Your task to perform on an android device: set default search engine in the chrome app Image 0: 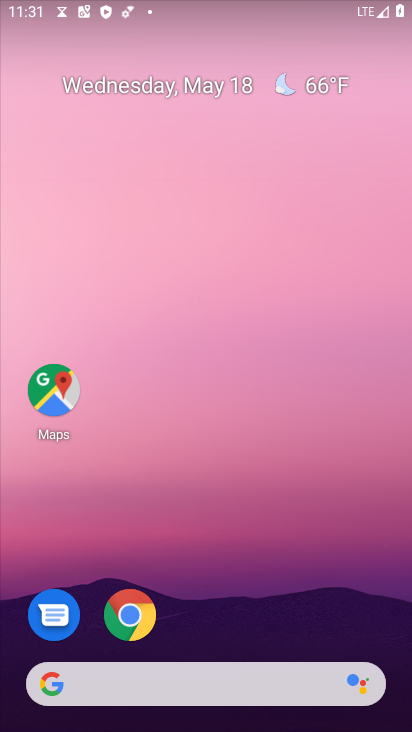
Step 0: drag from (210, 562) to (195, 28)
Your task to perform on an android device: set default search engine in the chrome app Image 1: 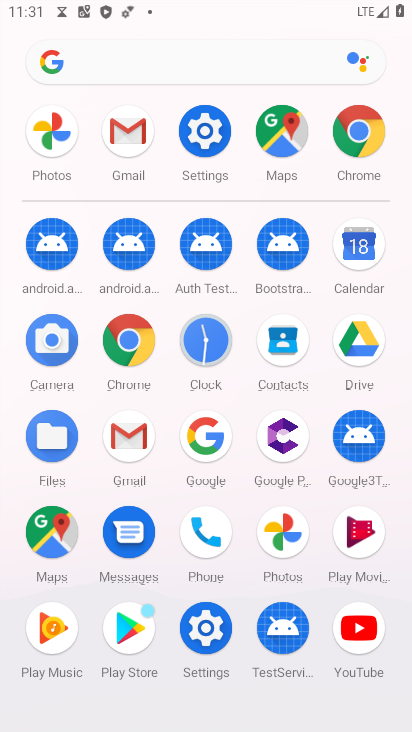
Step 1: drag from (0, 590) to (27, 255)
Your task to perform on an android device: set default search engine in the chrome app Image 2: 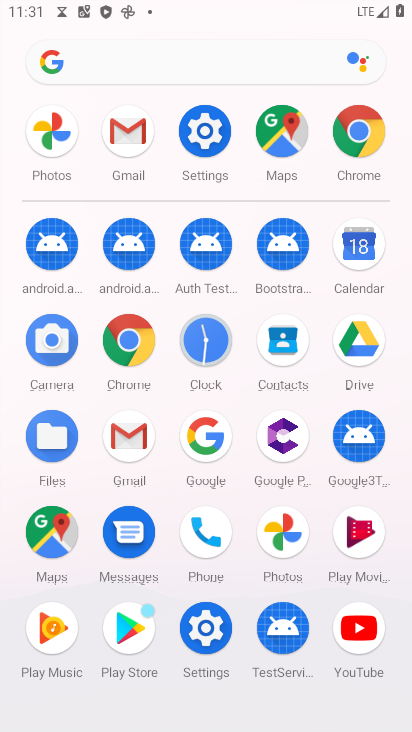
Step 2: click (126, 339)
Your task to perform on an android device: set default search engine in the chrome app Image 3: 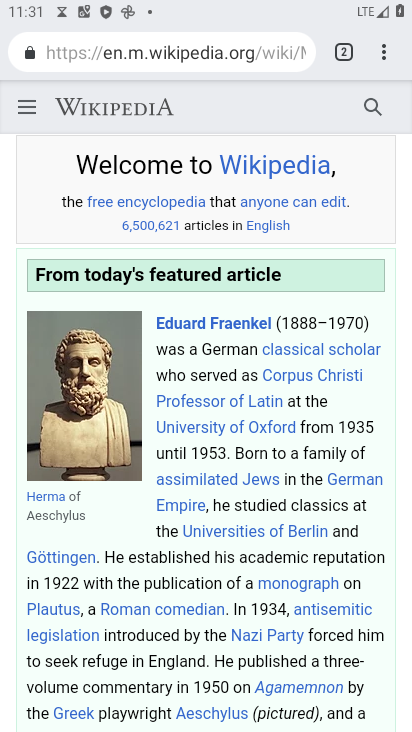
Step 3: drag from (382, 44) to (186, 630)
Your task to perform on an android device: set default search engine in the chrome app Image 4: 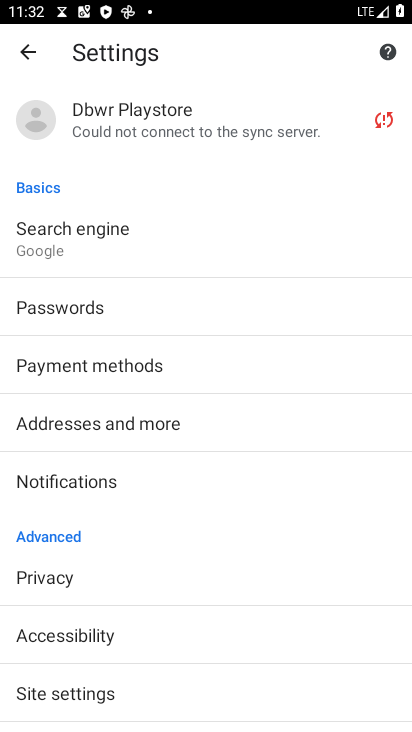
Step 4: drag from (220, 514) to (220, 199)
Your task to perform on an android device: set default search engine in the chrome app Image 5: 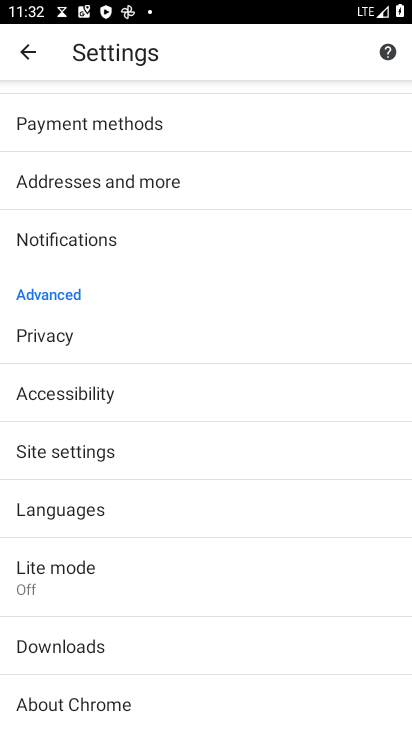
Step 5: click (104, 326)
Your task to perform on an android device: set default search engine in the chrome app Image 6: 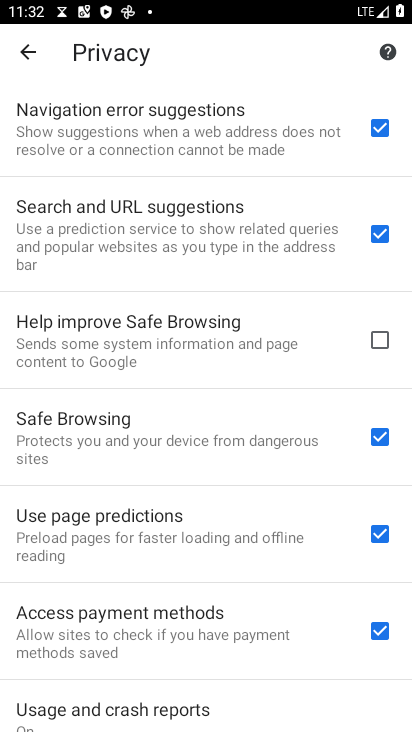
Step 6: drag from (152, 145) to (166, 425)
Your task to perform on an android device: set default search engine in the chrome app Image 7: 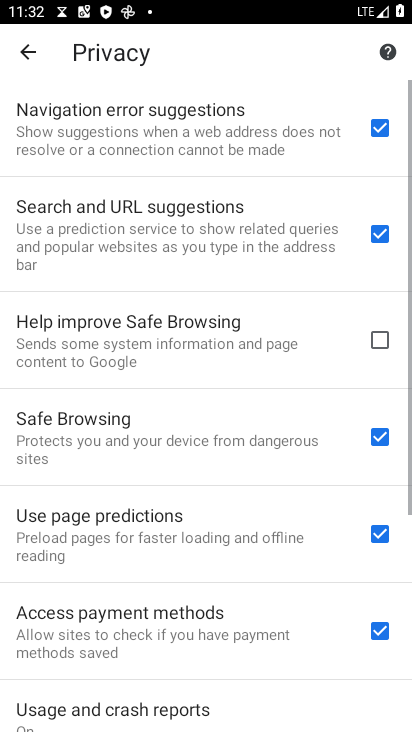
Step 7: click (25, 48)
Your task to perform on an android device: set default search engine in the chrome app Image 8: 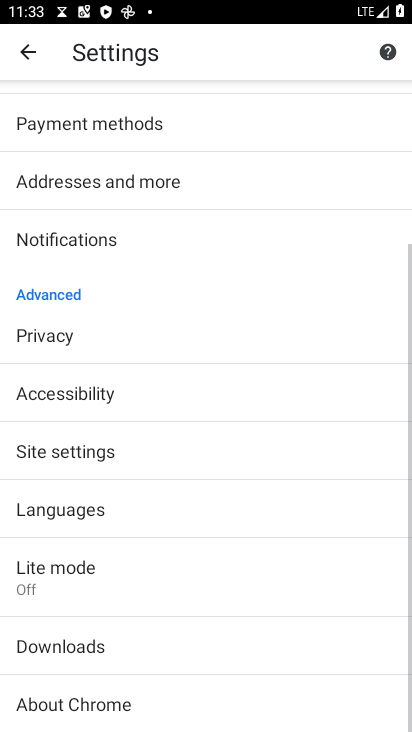
Step 8: click (103, 331)
Your task to perform on an android device: set default search engine in the chrome app Image 9: 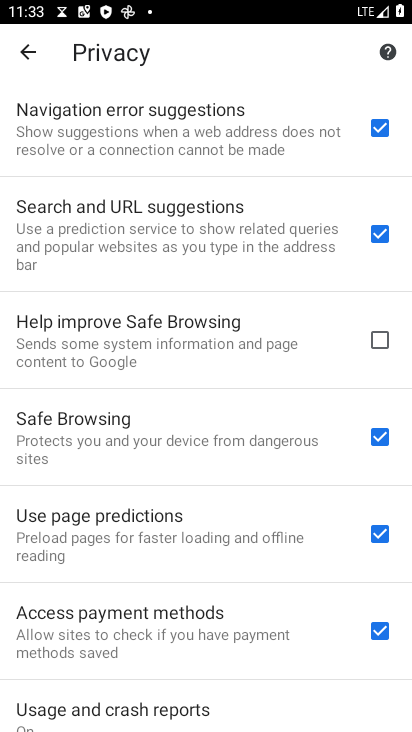
Step 9: task complete